Your task to perform on an android device: toggle pop-ups in chrome Image 0: 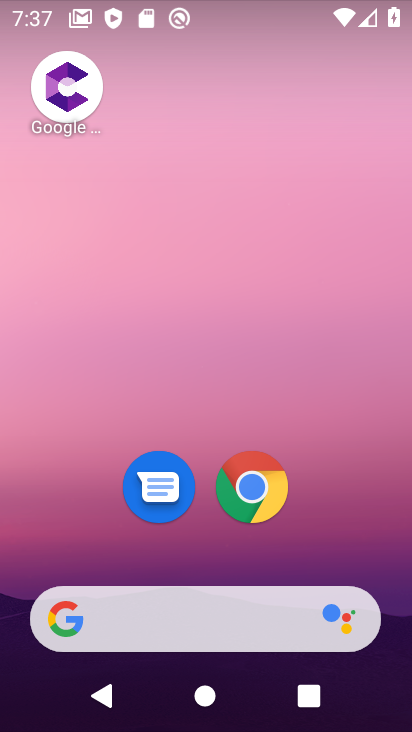
Step 0: click (282, 498)
Your task to perform on an android device: toggle pop-ups in chrome Image 1: 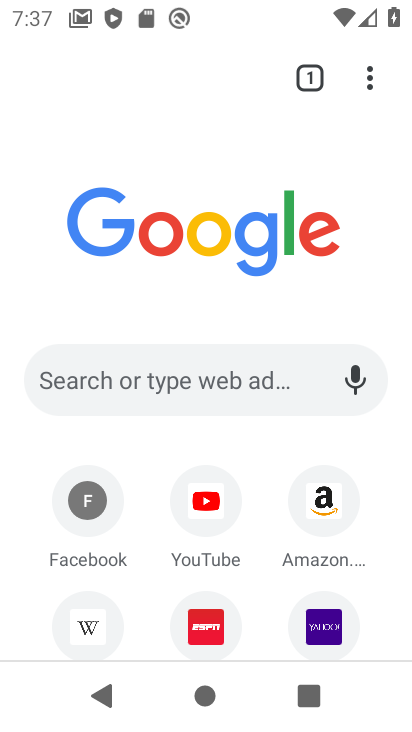
Step 1: click (382, 74)
Your task to perform on an android device: toggle pop-ups in chrome Image 2: 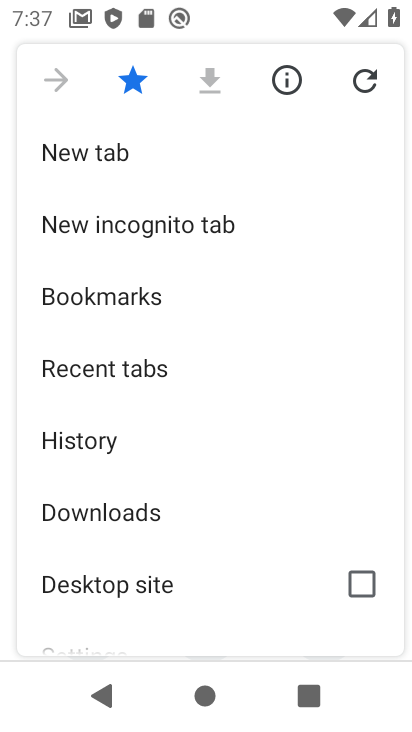
Step 2: drag from (210, 535) to (227, 284)
Your task to perform on an android device: toggle pop-ups in chrome Image 3: 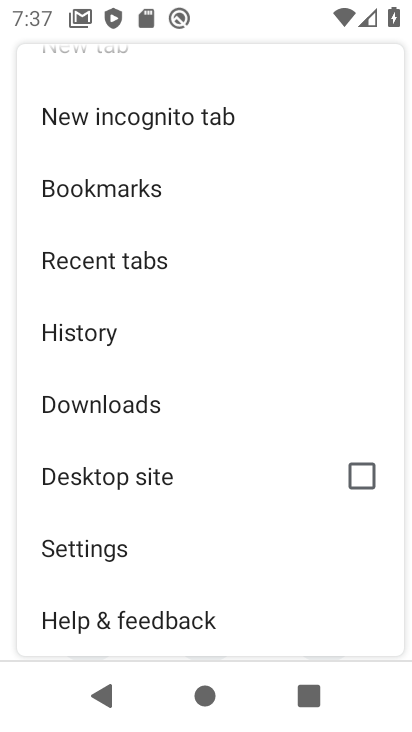
Step 3: click (142, 536)
Your task to perform on an android device: toggle pop-ups in chrome Image 4: 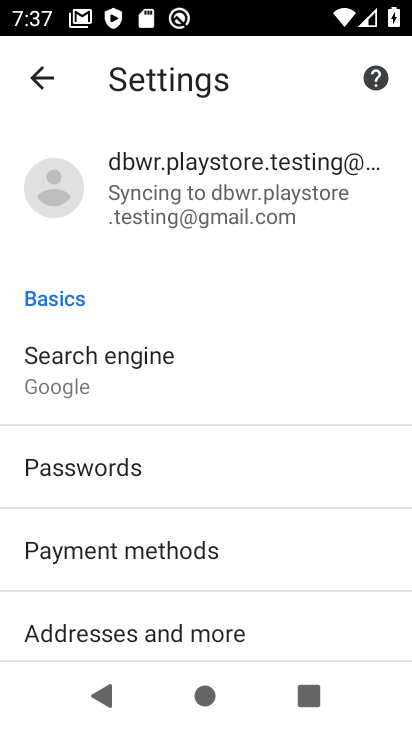
Step 4: drag from (240, 515) to (286, 211)
Your task to perform on an android device: toggle pop-ups in chrome Image 5: 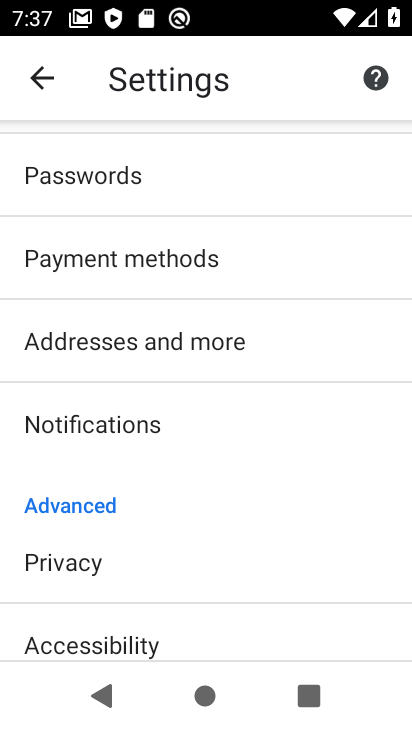
Step 5: drag from (267, 423) to (288, 295)
Your task to perform on an android device: toggle pop-ups in chrome Image 6: 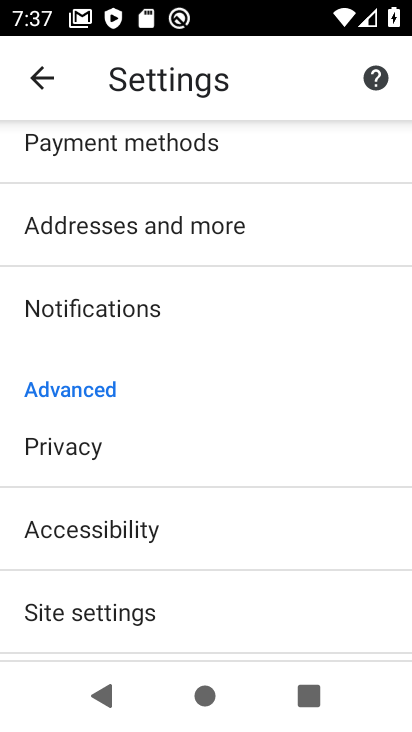
Step 6: click (194, 609)
Your task to perform on an android device: toggle pop-ups in chrome Image 7: 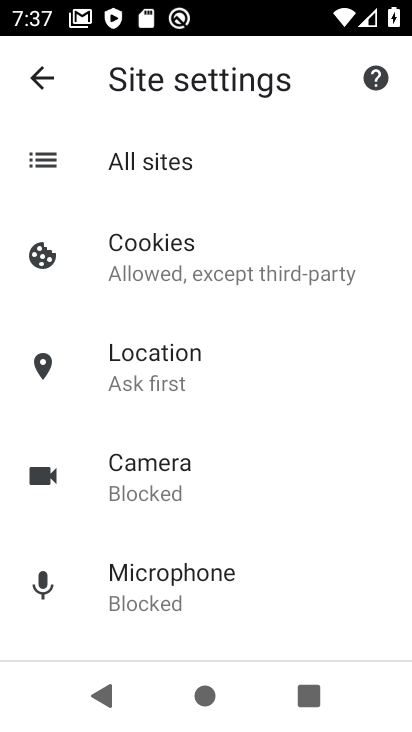
Step 7: drag from (89, 612) to (180, 134)
Your task to perform on an android device: toggle pop-ups in chrome Image 8: 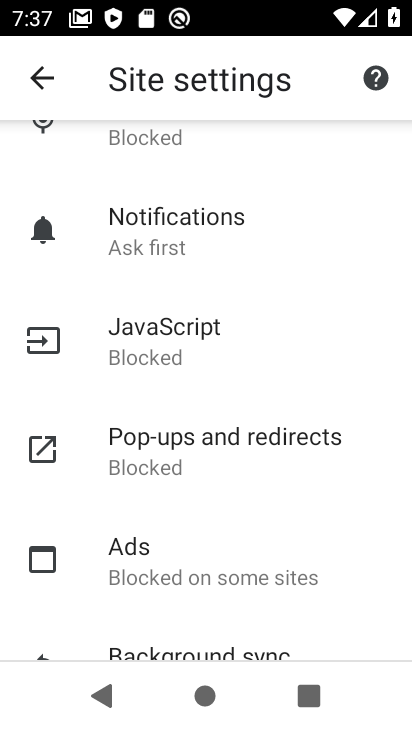
Step 8: click (212, 462)
Your task to perform on an android device: toggle pop-ups in chrome Image 9: 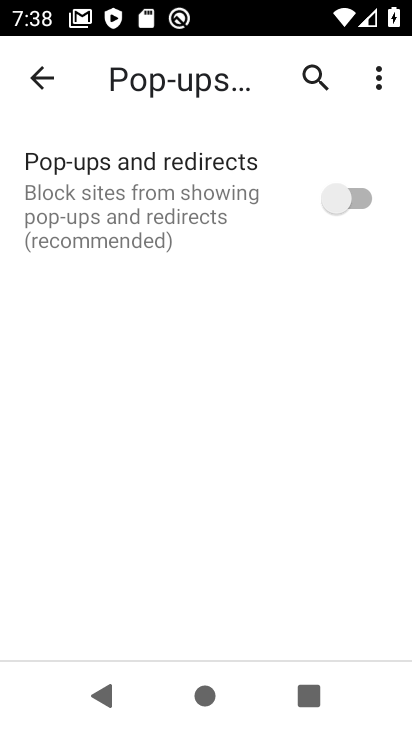
Step 9: click (365, 178)
Your task to perform on an android device: toggle pop-ups in chrome Image 10: 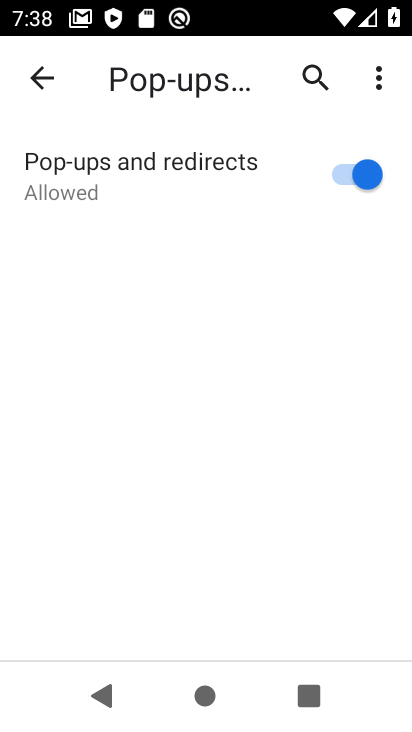
Step 10: task complete